Your task to perform on an android device: turn on improve location accuracy Image 0: 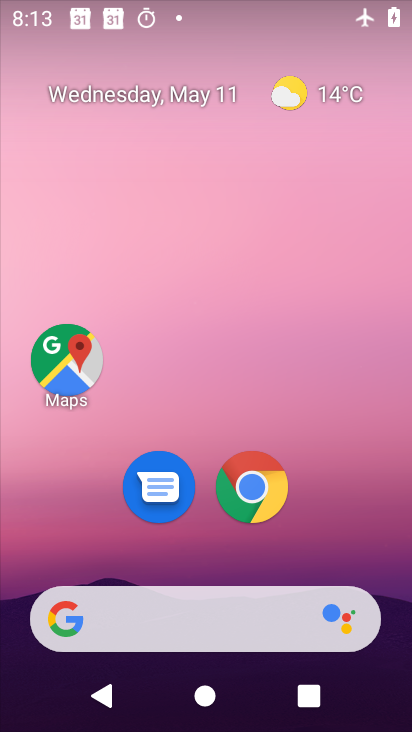
Step 0: drag from (212, 727) to (236, 186)
Your task to perform on an android device: turn on improve location accuracy Image 1: 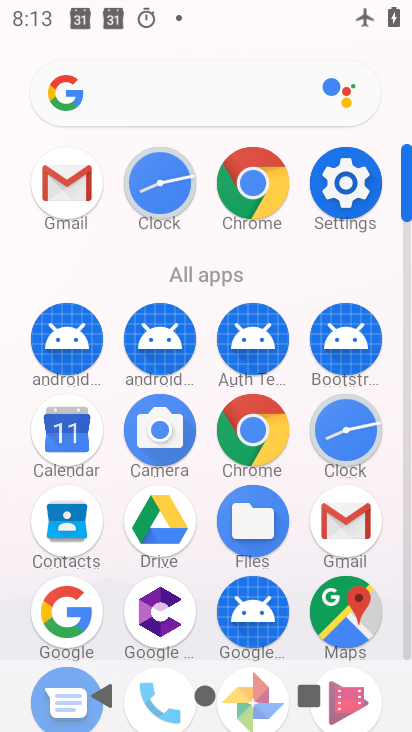
Step 1: click (354, 181)
Your task to perform on an android device: turn on improve location accuracy Image 2: 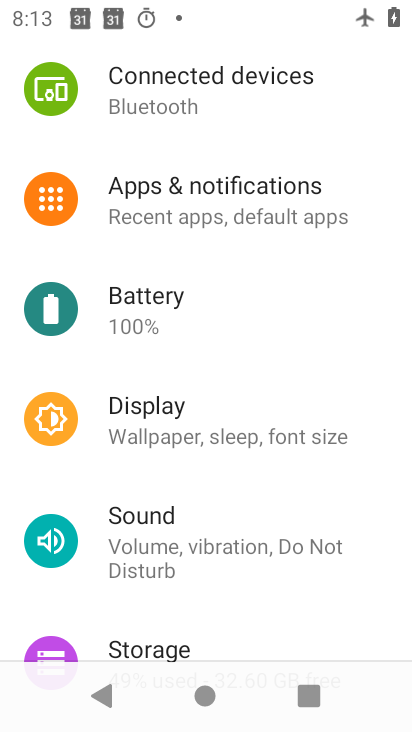
Step 2: drag from (234, 613) to (246, 241)
Your task to perform on an android device: turn on improve location accuracy Image 3: 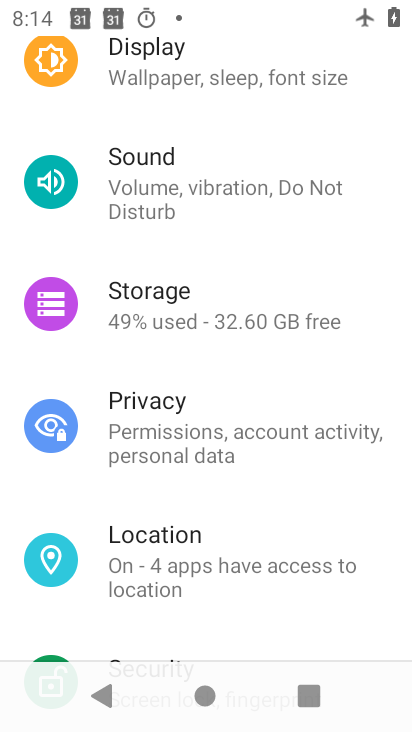
Step 3: click (170, 555)
Your task to perform on an android device: turn on improve location accuracy Image 4: 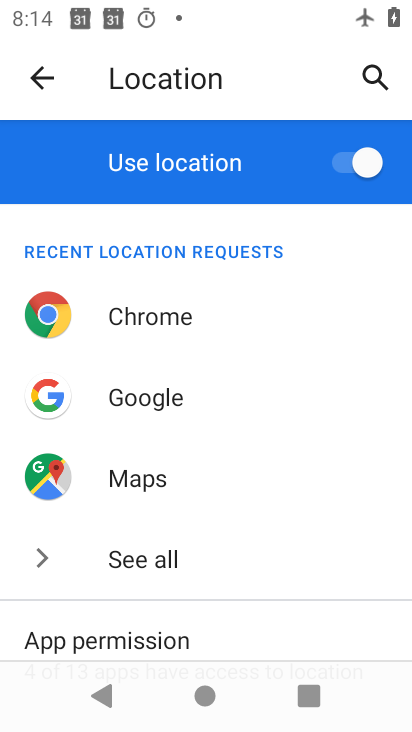
Step 4: drag from (234, 635) to (213, 292)
Your task to perform on an android device: turn on improve location accuracy Image 5: 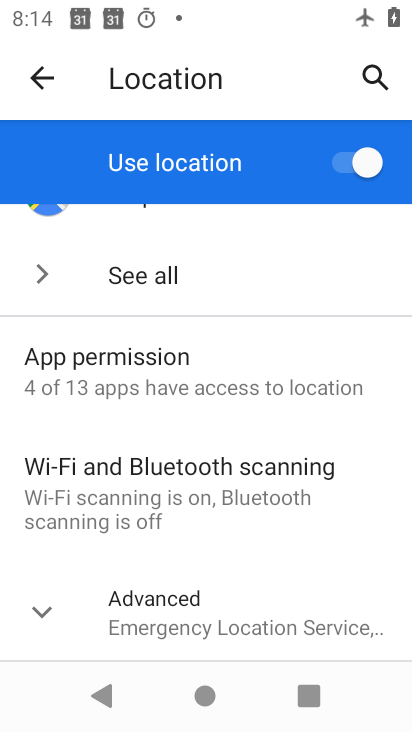
Step 5: drag from (161, 625) to (169, 247)
Your task to perform on an android device: turn on improve location accuracy Image 6: 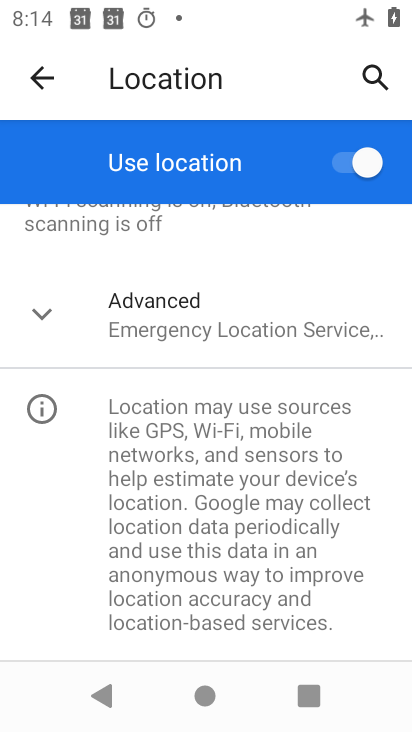
Step 6: click (129, 545)
Your task to perform on an android device: turn on improve location accuracy Image 7: 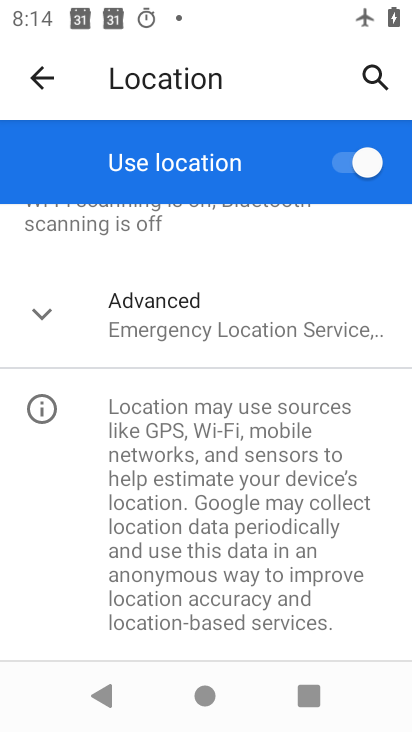
Step 7: drag from (128, 591) to (128, 320)
Your task to perform on an android device: turn on improve location accuracy Image 8: 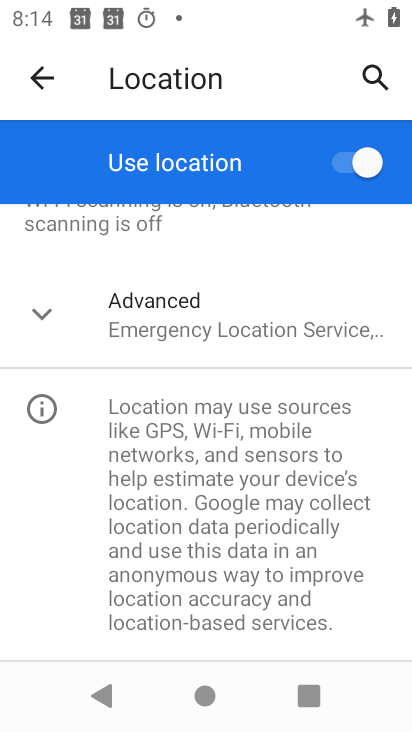
Step 8: click (216, 322)
Your task to perform on an android device: turn on improve location accuracy Image 9: 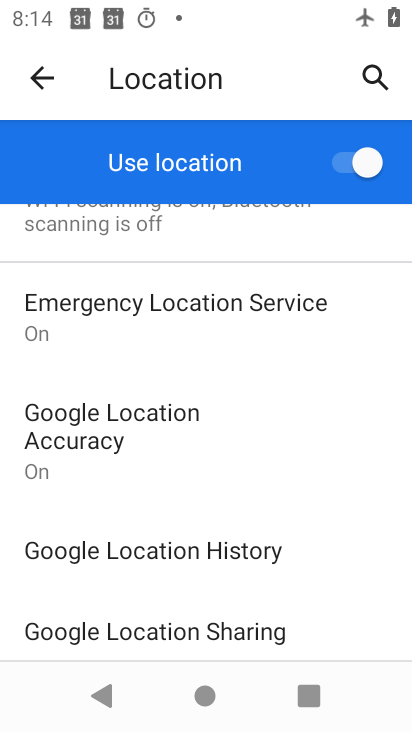
Step 9: click (93, 419)
Your task to perform on an android device: turn on improve location accuracy Image 10: 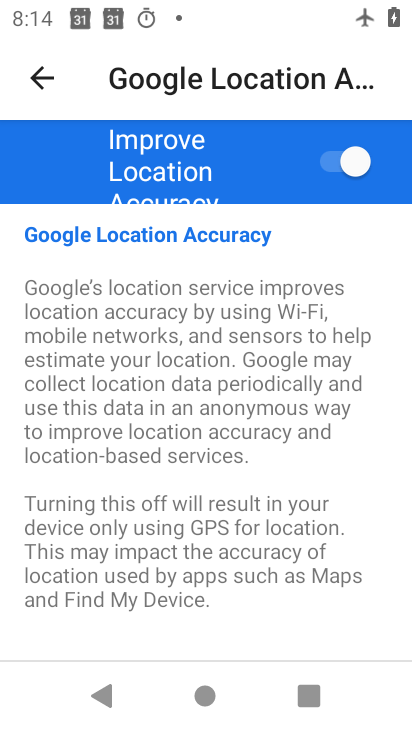
Step 10: task complete